Your task to perform on an android device: Search for "apple airpods pro" on costco, select the first entry, and add it to the cart. Image 0: 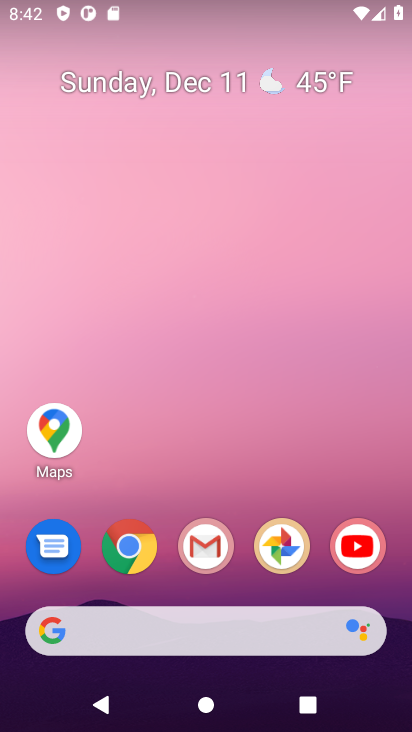
Step 0: click (135, 551)
Your task to perform on an android device: Search for "apple airpods pro" on costco, select the first entry, and add it to the cart. Image 1: 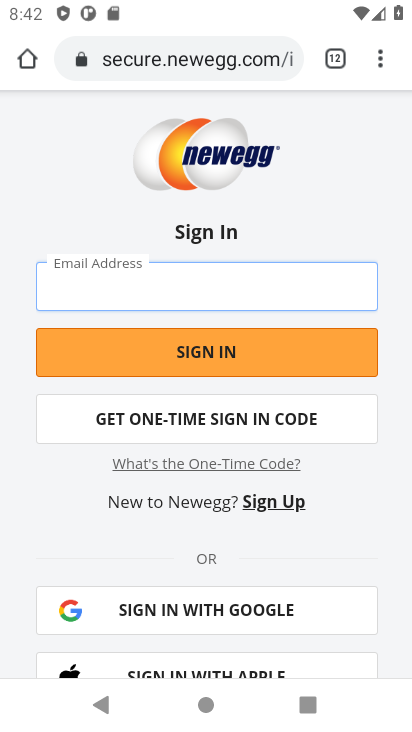
Step 1: click (173, 62)
Your task to perform on an android device: Search for "apple airpods pro" on costco, select the first entry, and add it to the cart. Image 2: 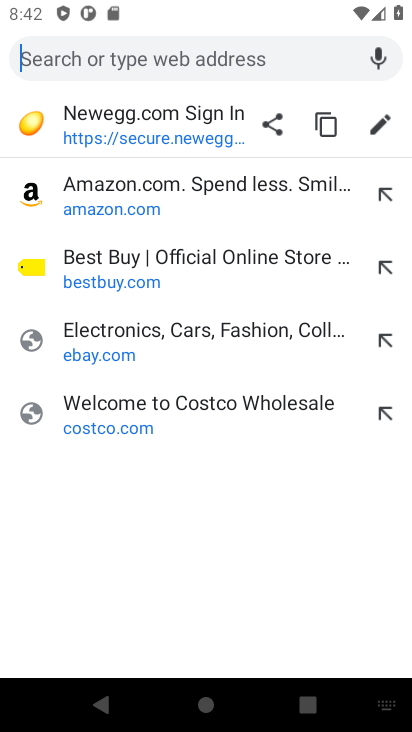
Step 2: click (72, 424)
Your task to perform on an android device: Search for "apple airpods pro" on costco, select the first entry, and add it to the cart. Image 3: 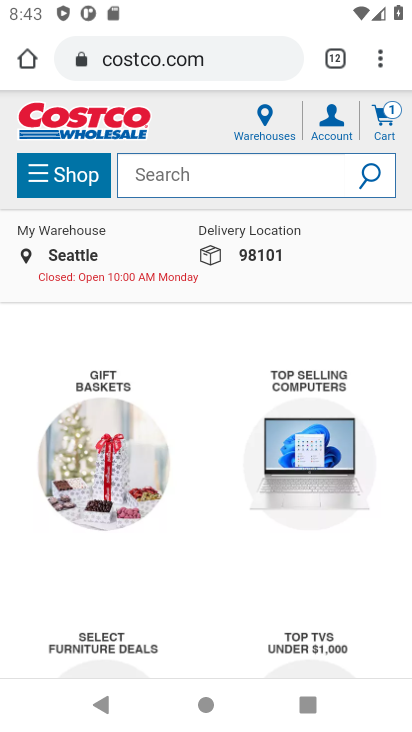
Step 3: click (169, 180)
Your task to perform on an android device: Search for "apple airpods pro" on costco, select the first entry, and add it to the cart. Image 4: 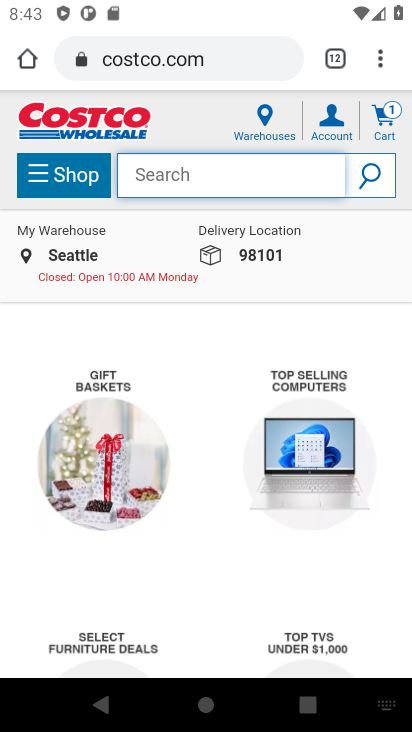
Step 4: type "apple airpods pro"
Your task to perform on an android device: Search for "apple airpods pro" on costco, select the first entry, and add it to the cart. Image 5: 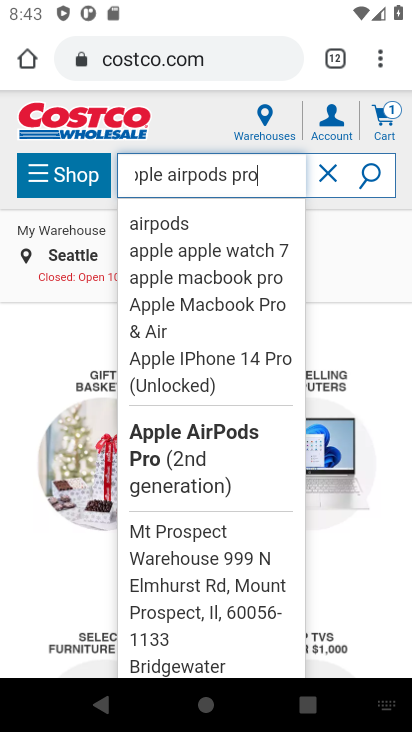
Step 5: click (362, 175)
Your task to perform on an android device: Search for "apple airpods pro" on costco, select the first entry, and add it to the cart. Image 6: 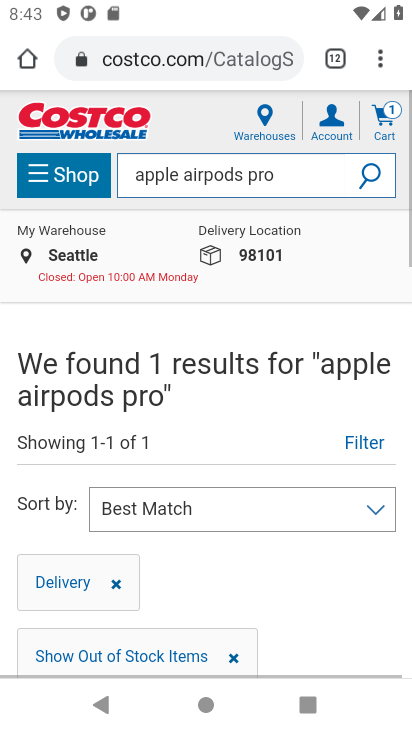
Step 6: drag from (265, 507) to (266, 145)
Your task to perform on an android device: Search for "apple airpods pro" on costco, select the first entry, and add it to the cart. Image 7: 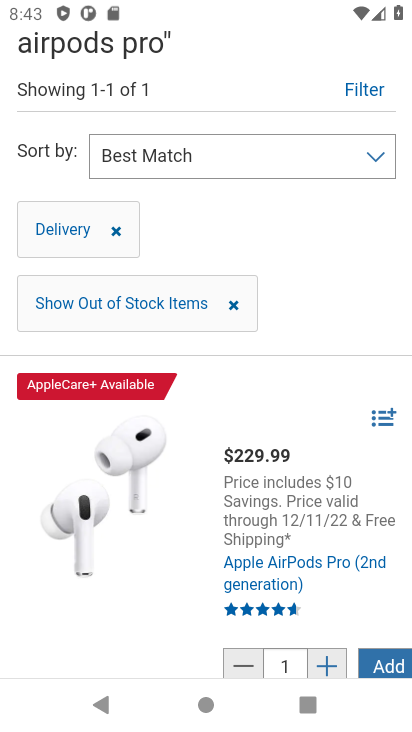
Step 7: drag from (245, 525) to (236, 319)
Your task to perform on an android device: Search for "apple airpods pro" on costco, select the first entry, and add it to the cart. Image 8: 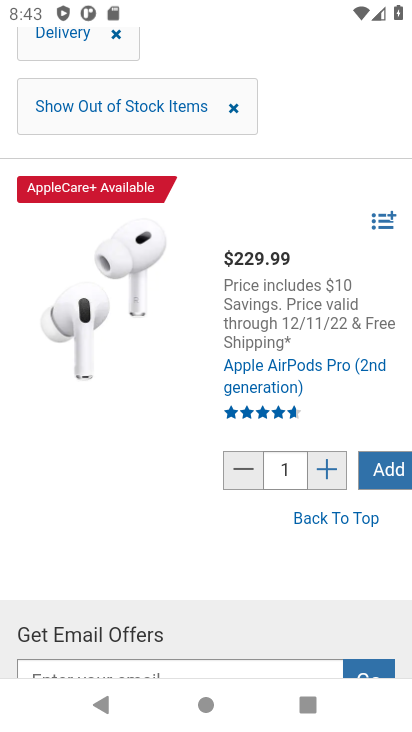
Step 8: click (391, 473)
Your task to perform on an android device: Search for "apple airpods pro" on costco, select the first entry, and add it to the cart. Image 9: 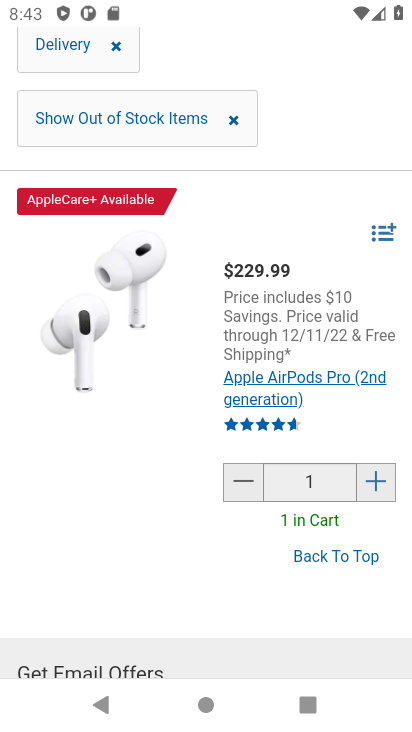
Step 9: task complete